Your task to perform on an android device: Is it going to rain this weekend? Image 0: 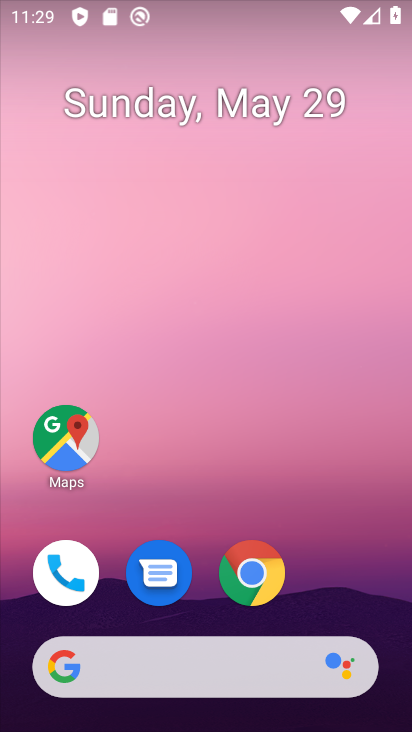
Step 0: click (226, 660)
Your task to perform on an android device: Is it going to rain this weekend? Image 1: 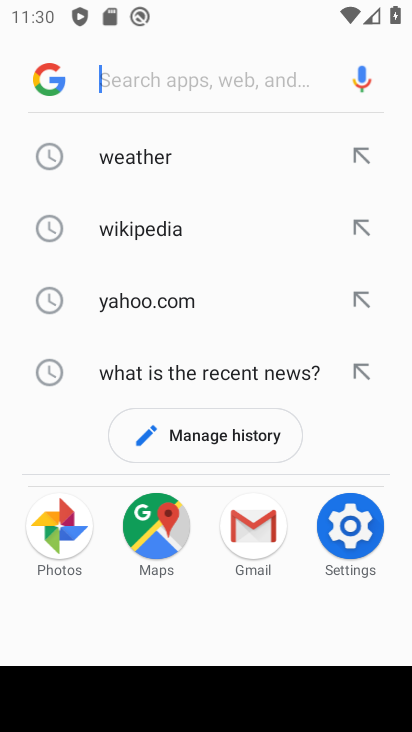
Step 1: type "Is it going to rain this weekend"
Your task to perform on an android device: Is it going to rain this weekend? Image 2: 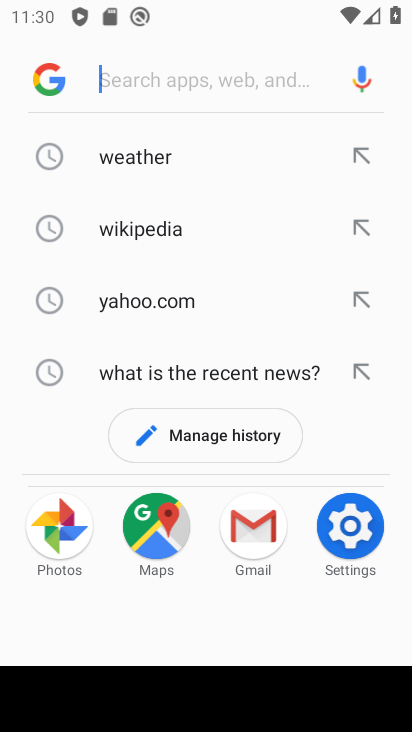
Step 2: click (164, 74)
Your task to perform on an android device: Is it going to rain this weekend? Image 3: 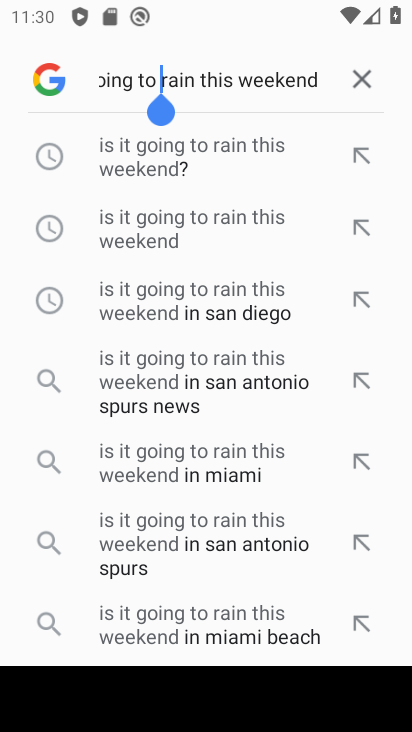
Step 3: click (167, 165)
Your task to perform on an android device: Is it going to rain this weekend? Image 4: 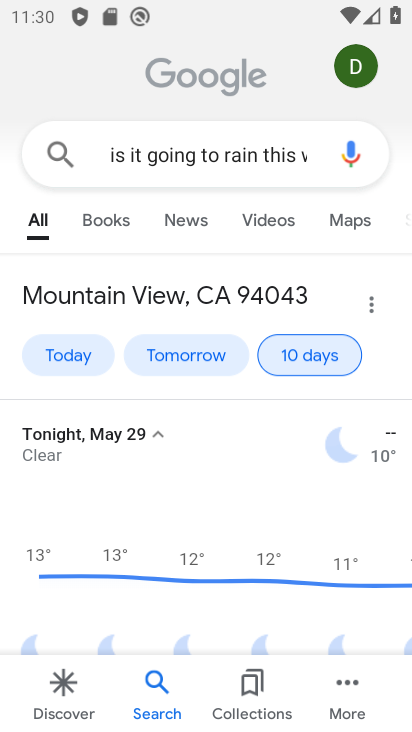
Step 4: task complete